Your task to perform on an android device: Do I have any events today? Image 0: 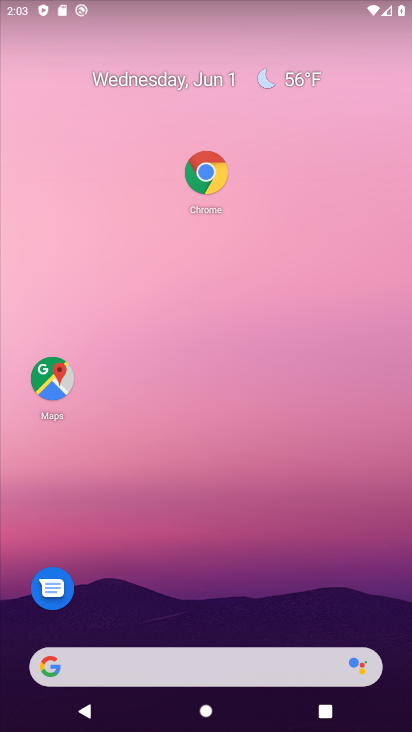
Step 0: drag from (228, 573) to (298, 88)
Your task to perform on an android device: Do I have any events today? Image 1: 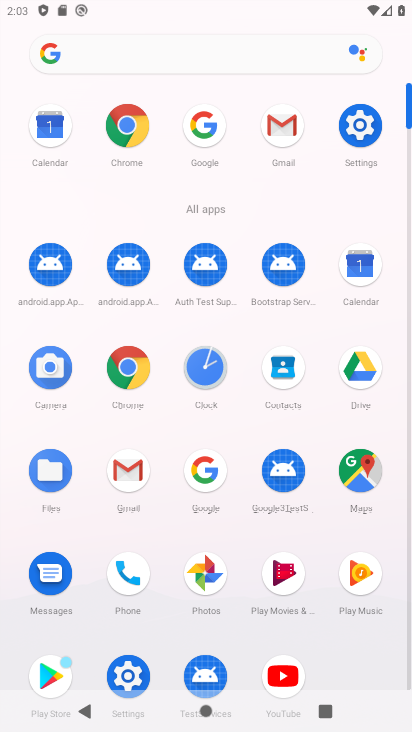
Step 1: click (362, 283)
Your task to perform on an android device: Do I have any events today? Image 2: 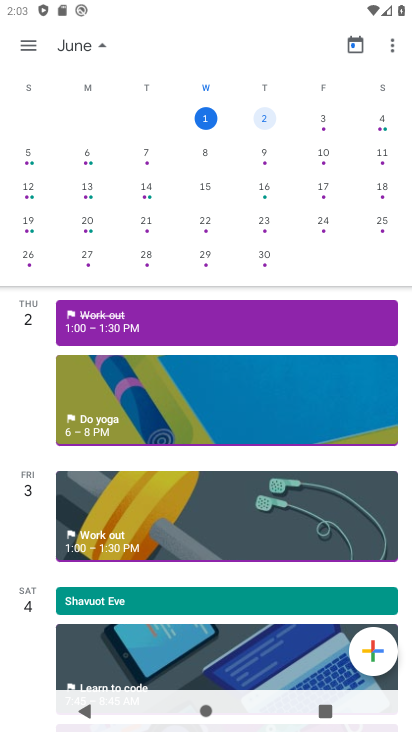
Step 2: click (205, 120)
Your task to perform on an android device: Do I have any events today? Image 3: 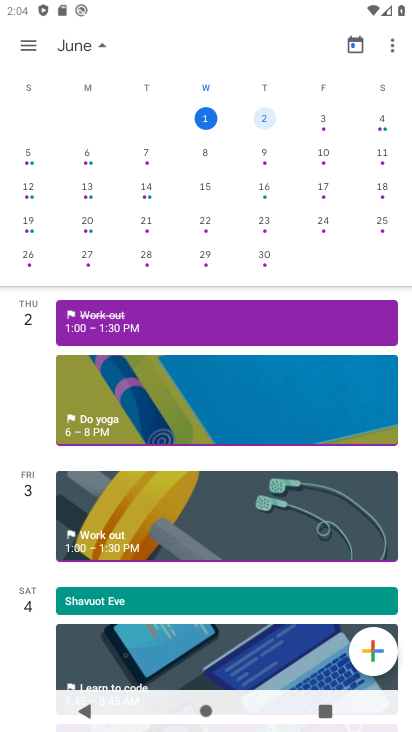
Step 3: click (205, 120)
Your task to perform on an android device: Do I have any events today? Image 4: 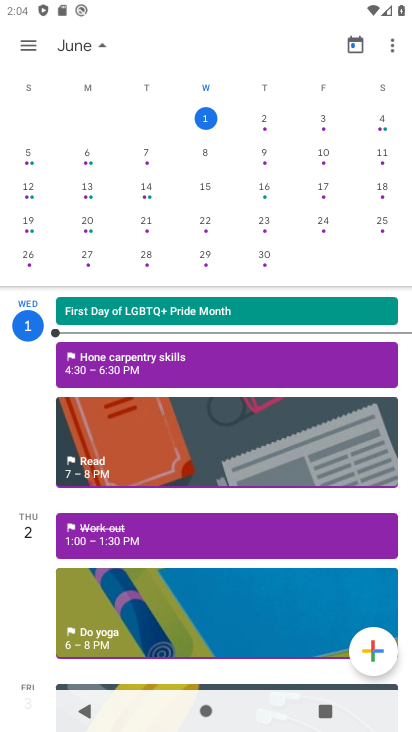
Step 4: task complete